Your task to perform on an android device: change your default location settings in chrome Image 0: 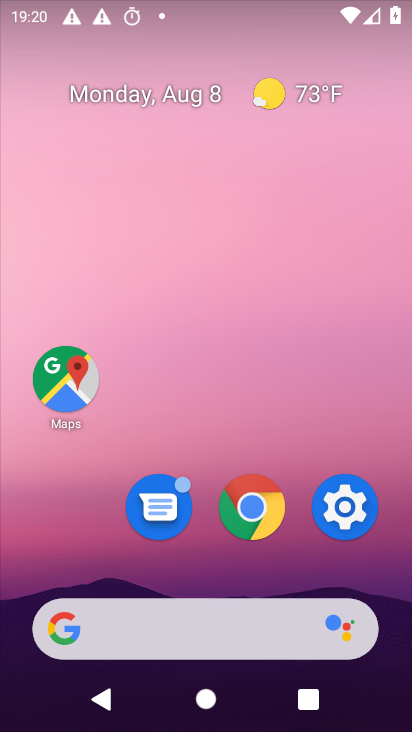
Step 0: drag from (289, 647) to (269, 155)
Your task to perform on an android device: change your default location settings in chrome Image 1: 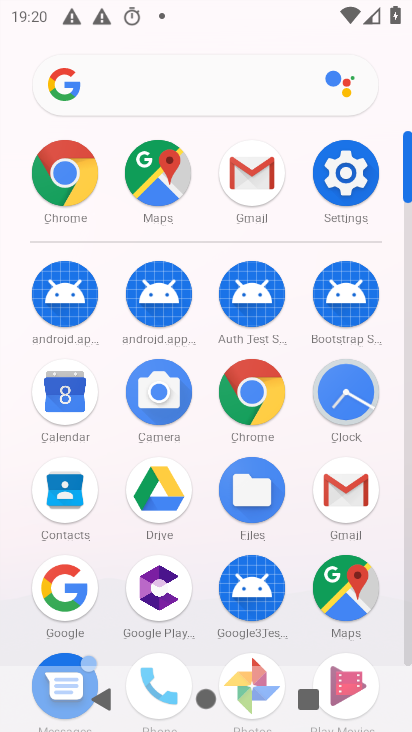
Step 1: click (75, 170)
Your task to perform on an android device: change your default location settings in chrome Image 2: 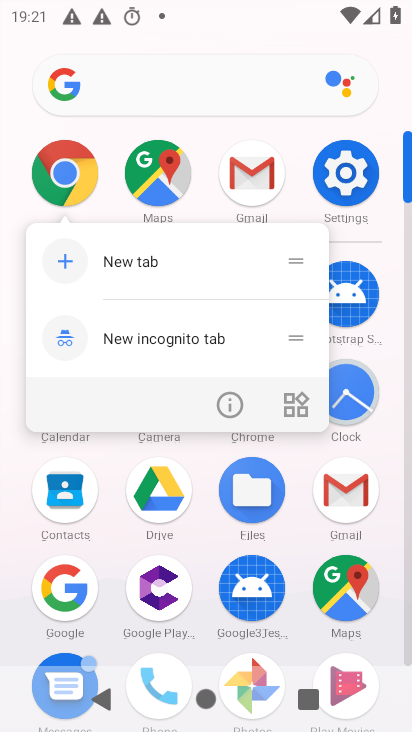
Step 2: click (44, 191)
Your task to perform on an android device: change your default location settings in chrome Image 3: 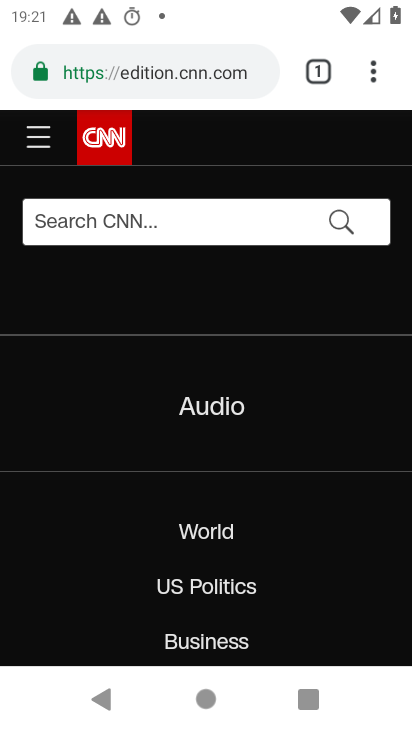
Step 3: click (370, 83)
Your task to perform on an android device: change your default location settings in chrome Image 4: 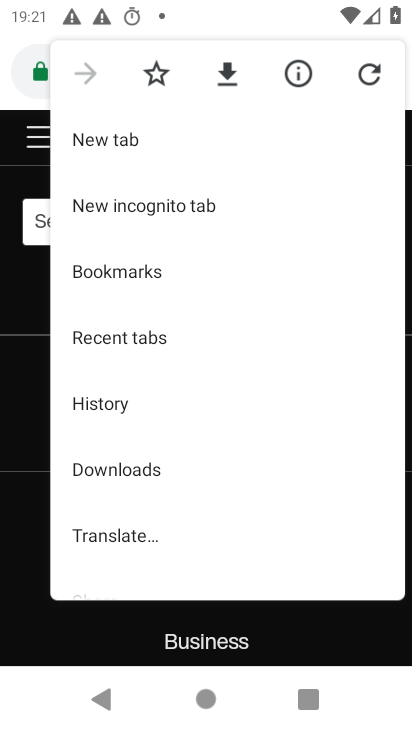
Step 4: drag from (170, 528) to (155, 225)
Your task to perform on an android device: change your default location settings in chrome Image 5: 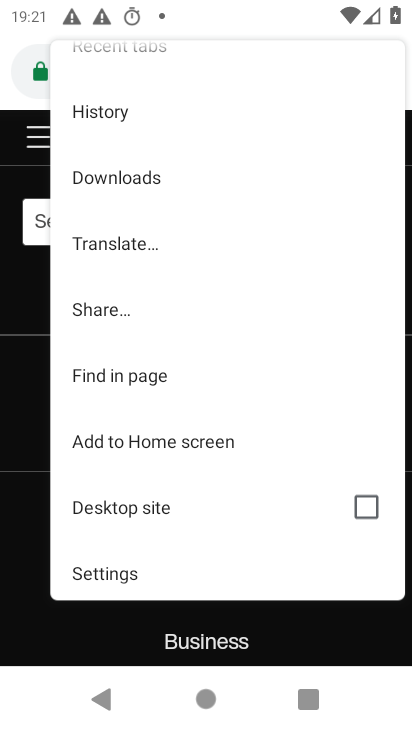
Step 5: click (135, 572)
Your task to perform on an android device: change your default location settings in chrome Image 6: 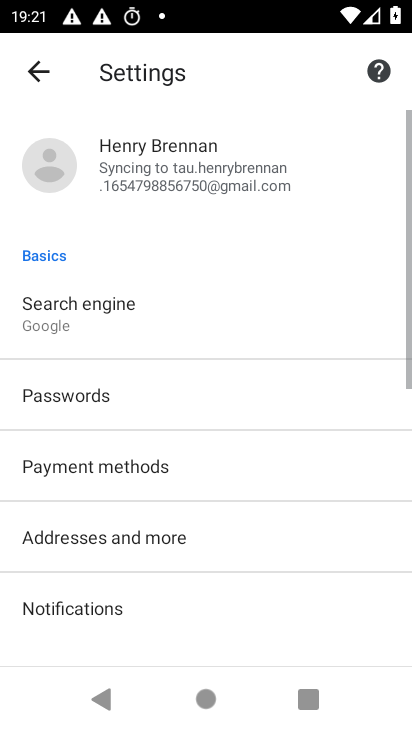
Step 6: drag from (184, 596) to (147, 231)
Your task to perform on an android device: change your default location settings in chrome Image 7: 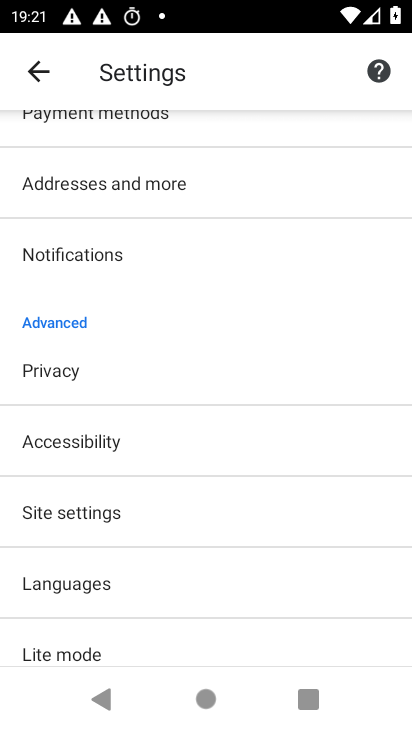
Step 7: click (127, 515)
Your task to perform on an android device: change your default location settings in chrome Image 8: 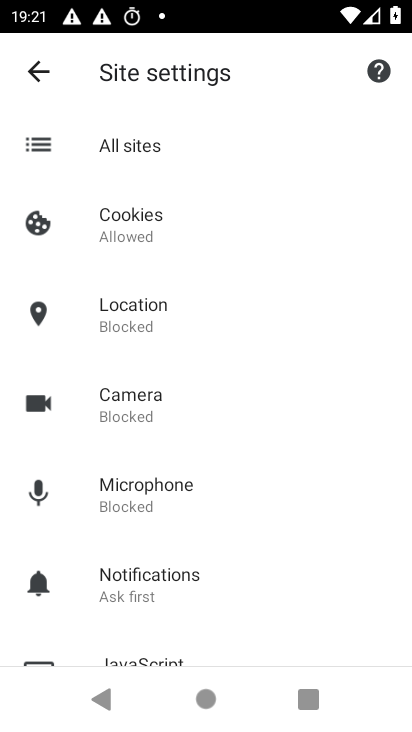
Step 8: click (118, 334)
Your task to perform on an android device: change your default location settings in chrome Image 9: 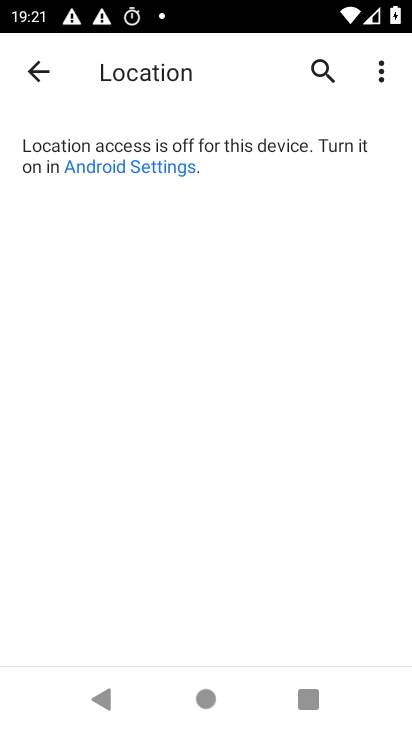
Step 9: task complete